Your task to perform on an android device: install app "Google Find My Device" Image 0: 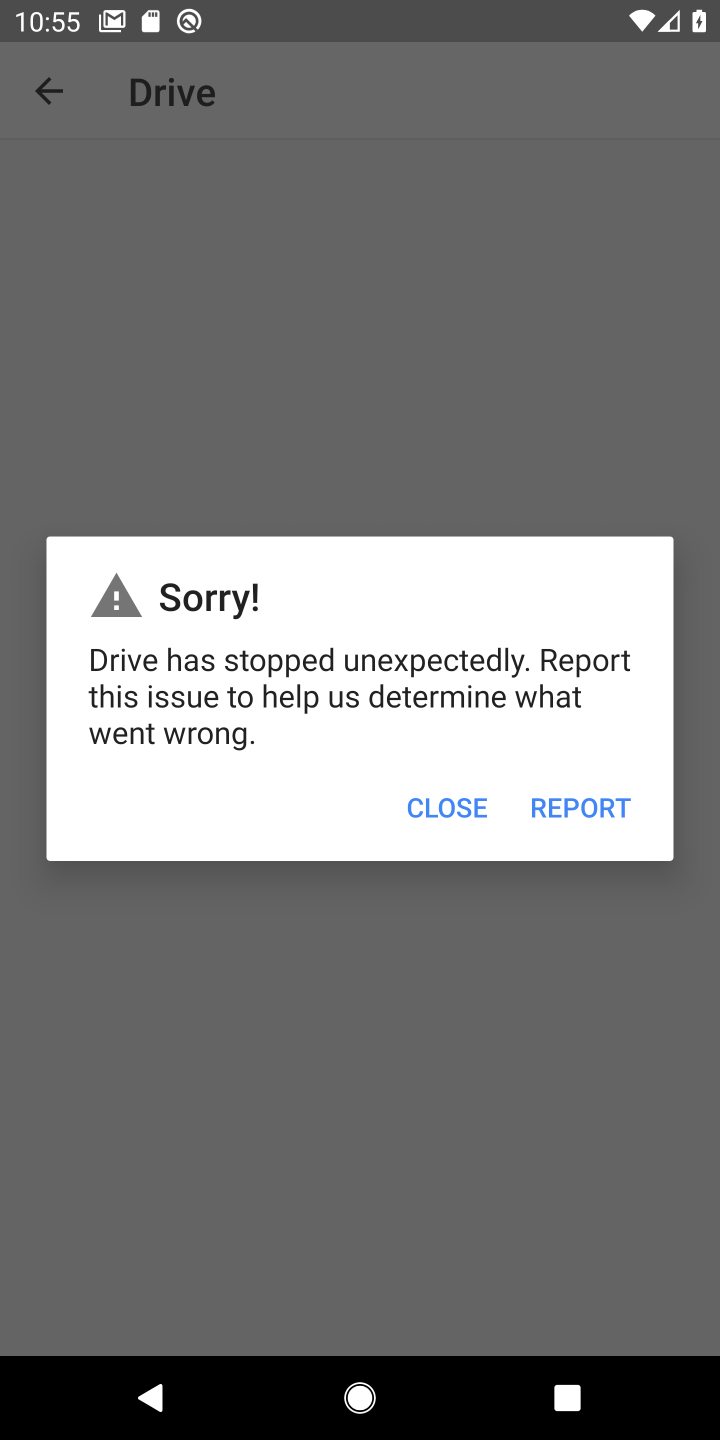
Step 0: press home button
Your task to perform on an android device: install app "Google Find My Device" Image 1: 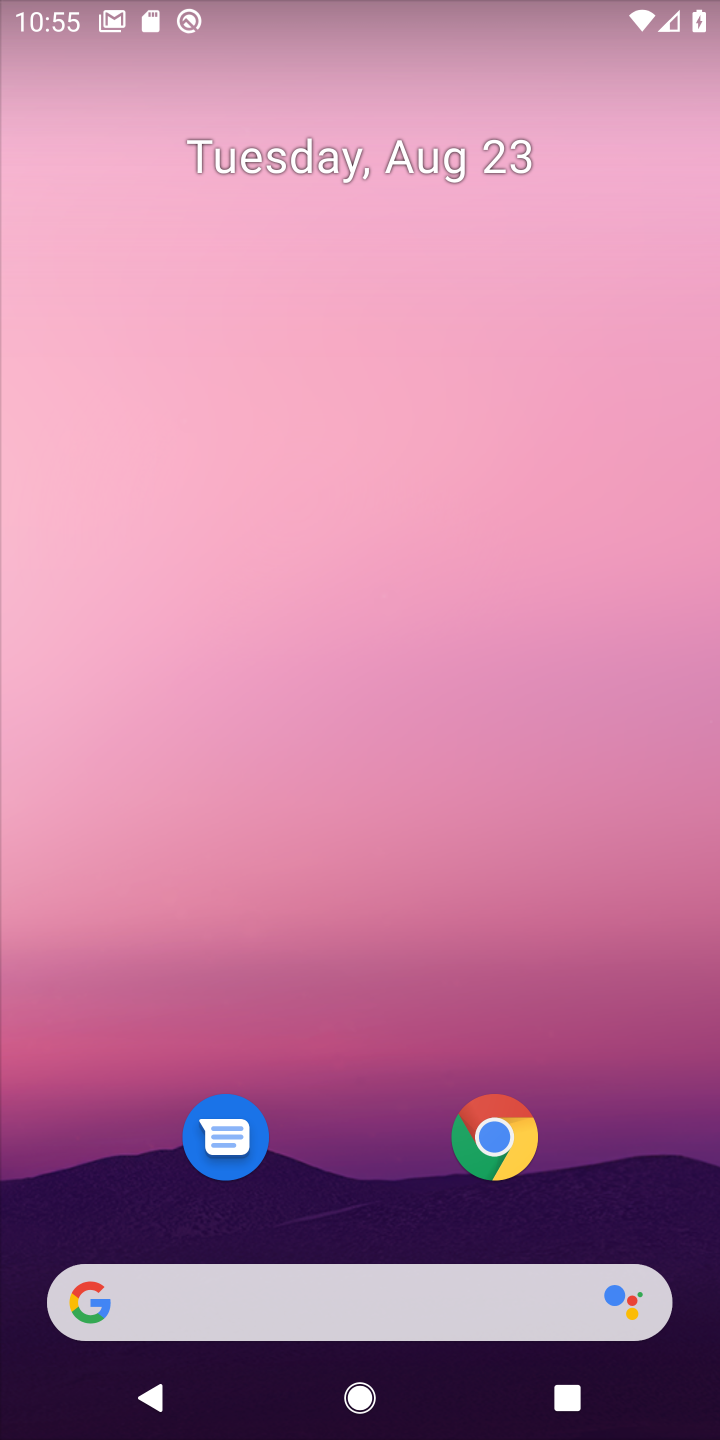
Step 1: drag from (353, 1221) to (429, 272)
Your task to perform on an android device: install app "Google Find My Device" Image 2: 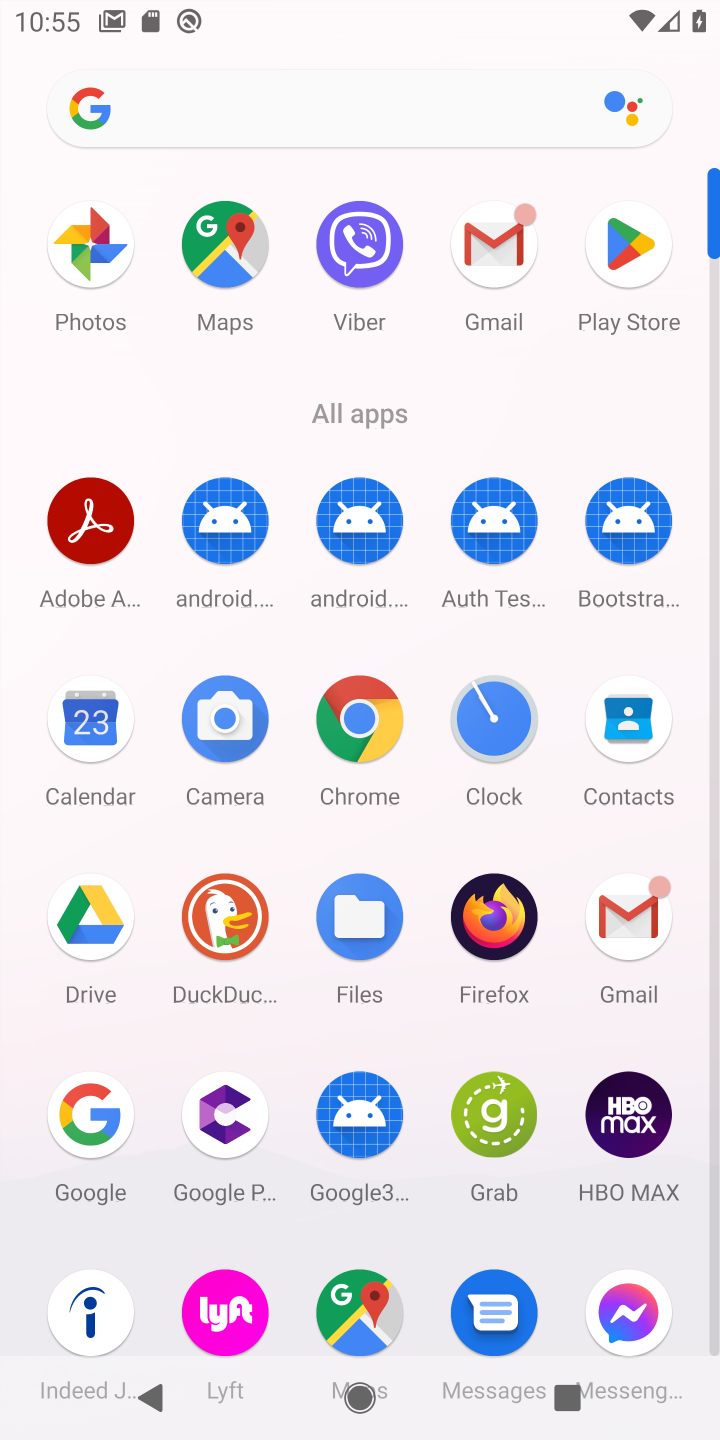
Step 2: click (622, 265)
Your task to perform on an android device: install app "Google Find My Device" Image 3: 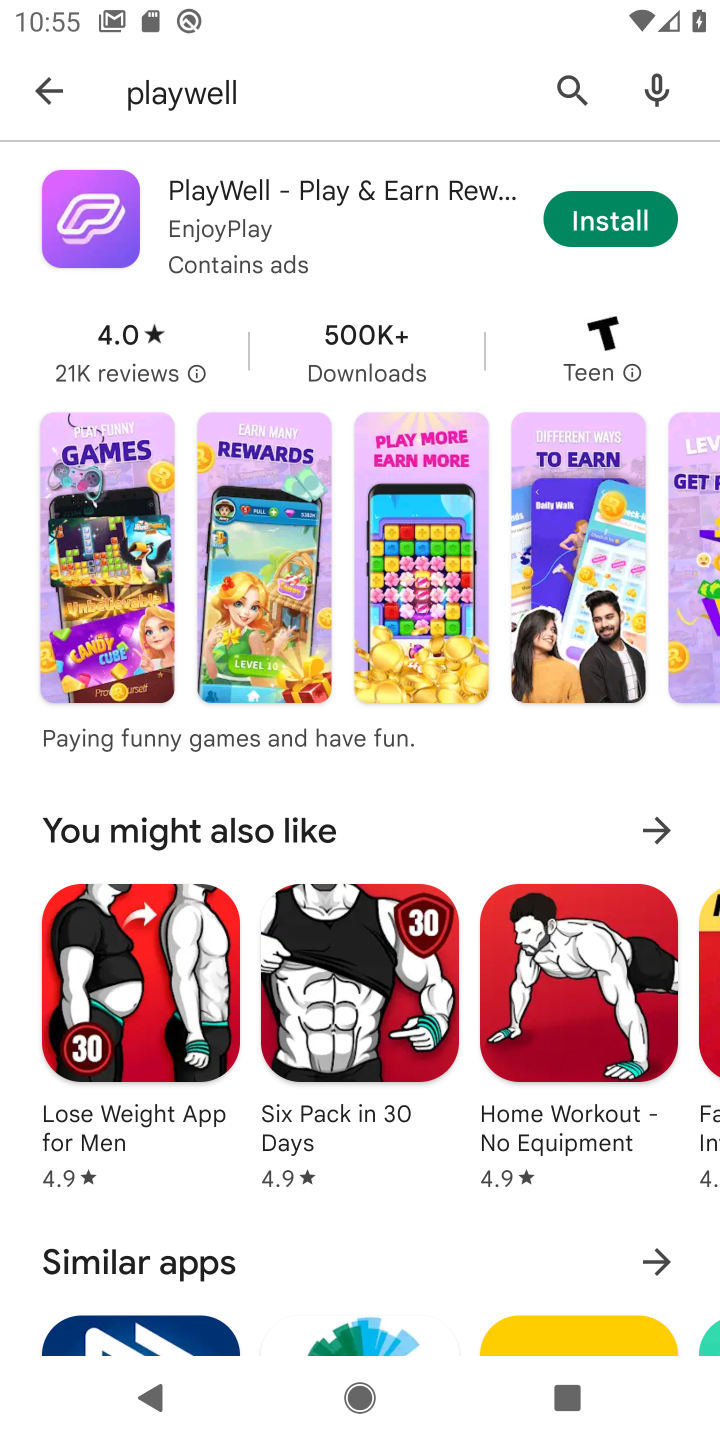
Step 3: click (624, 252)
Your task to perform on an android device: install app "Google Find My Device" Image 4: 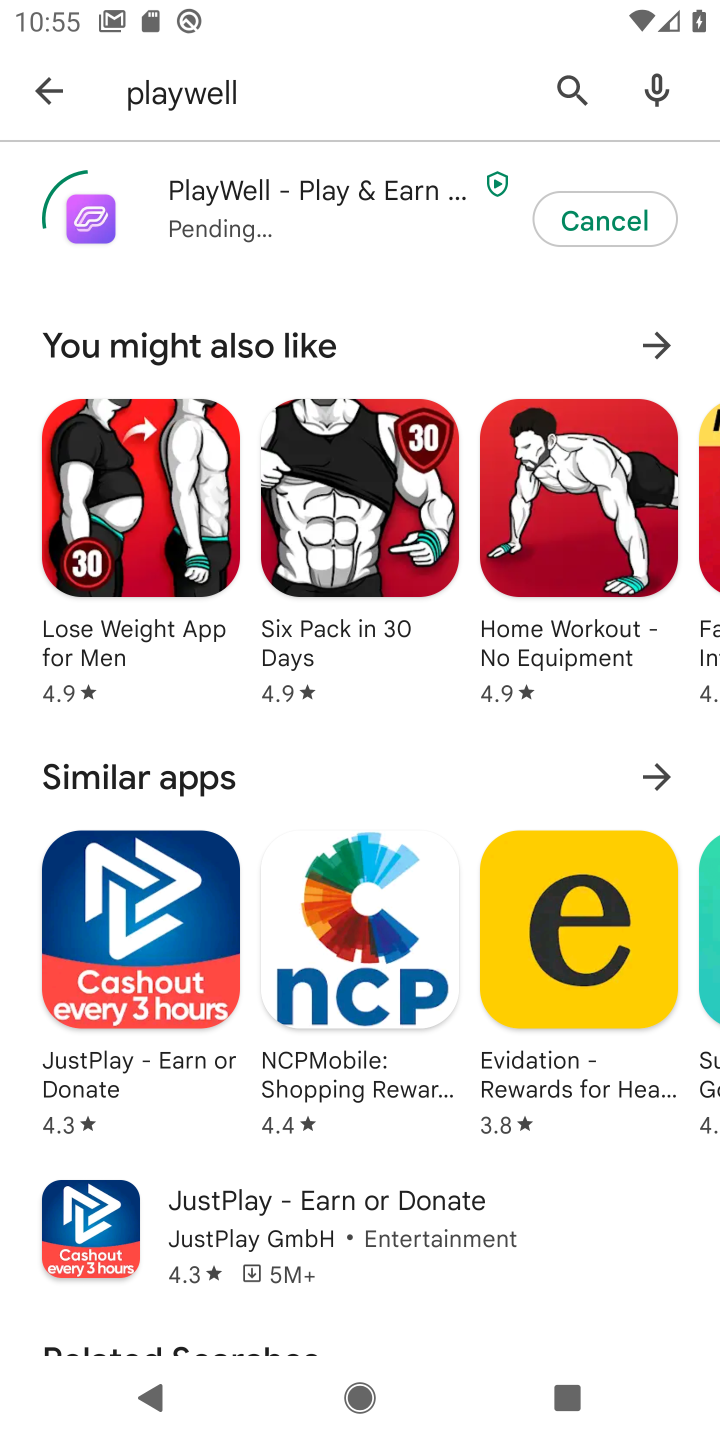
Step 4: click (324, 84)
Your task to perform on an android device: install app "Google Find My Device" Image 5: 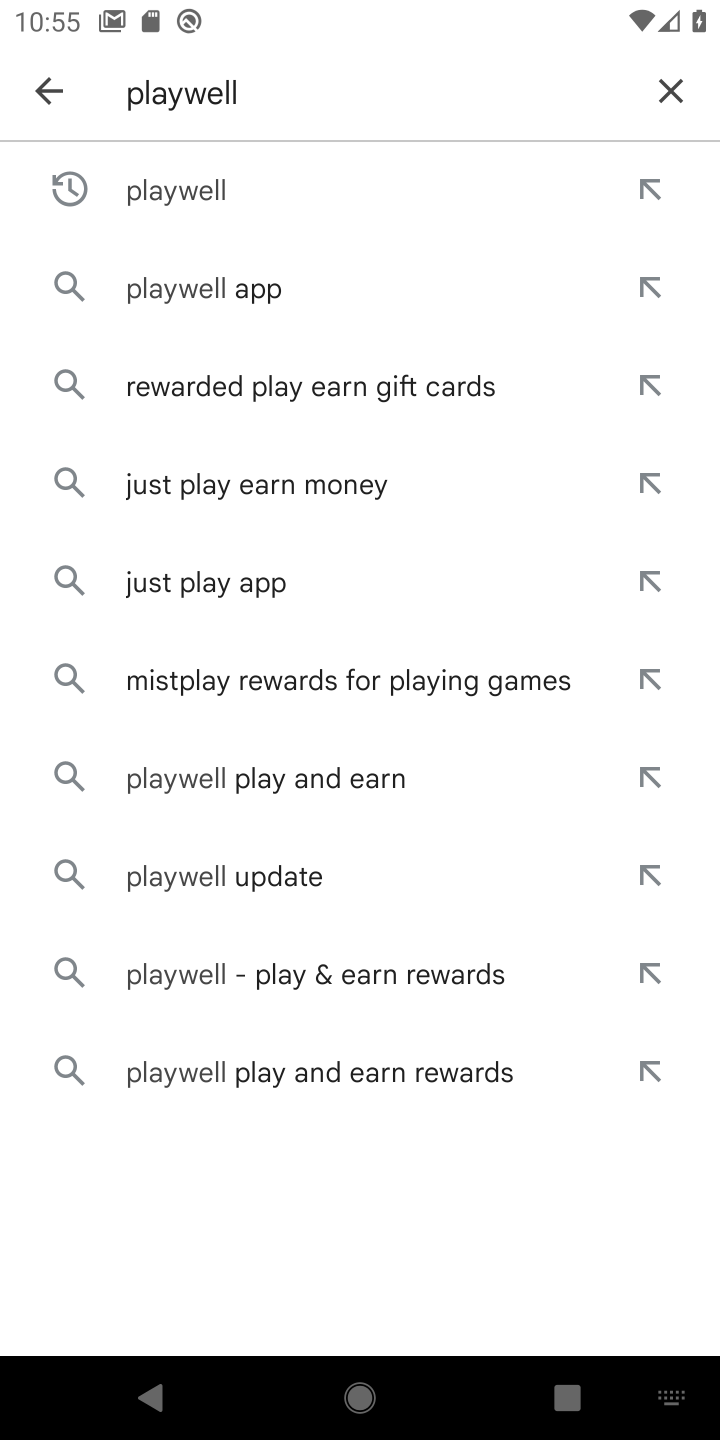
Step 5: click (659, 73)
Your task to perform on an android device: install app "Google Find My Device" Image 6: 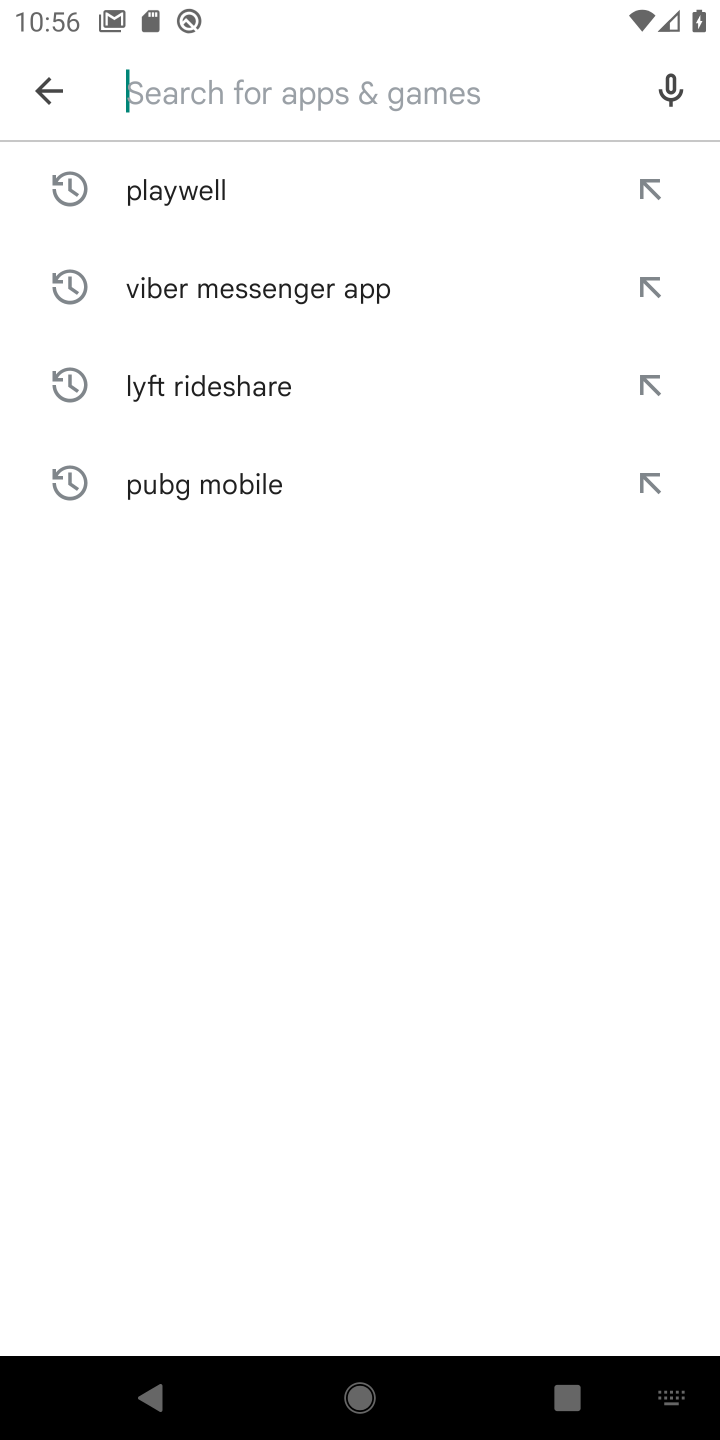
Step 6: type "google find my device"
Your task to perform on an android device: install app "Google Find My Device" Image 7: 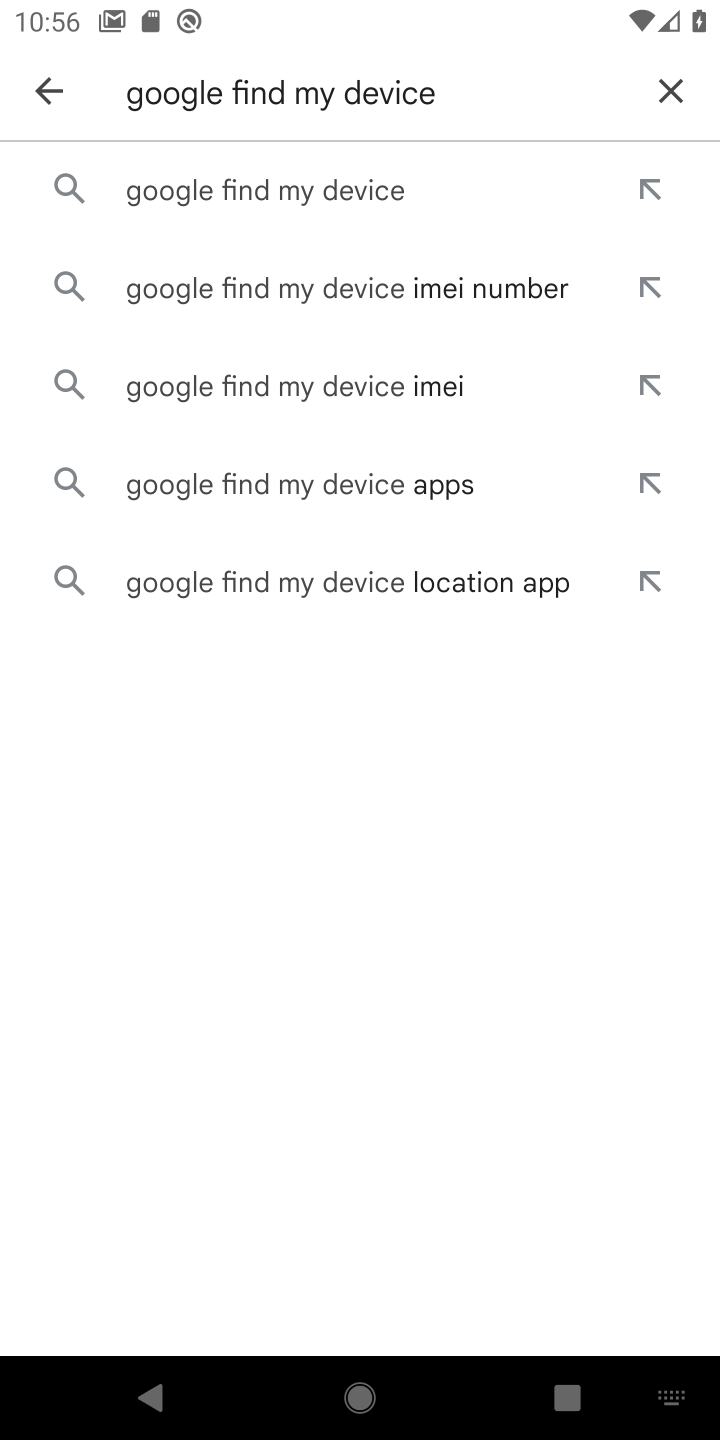
Step 7: click (392, 91)
Your task to perform on an android device: install app "Google Find My Device" Image 8: 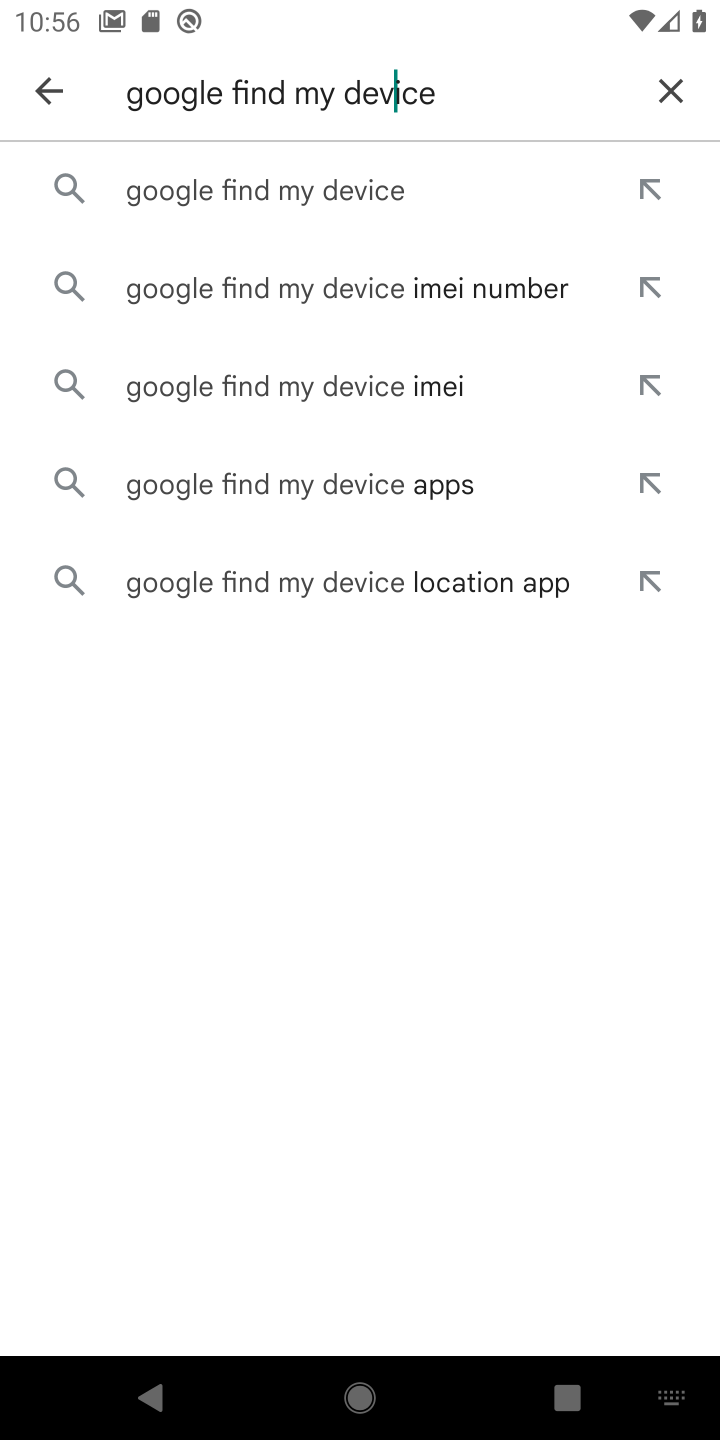
Step 8: click (334, 187)
Your task to perform on an android device: install app "Google Find My Device" Image 9: 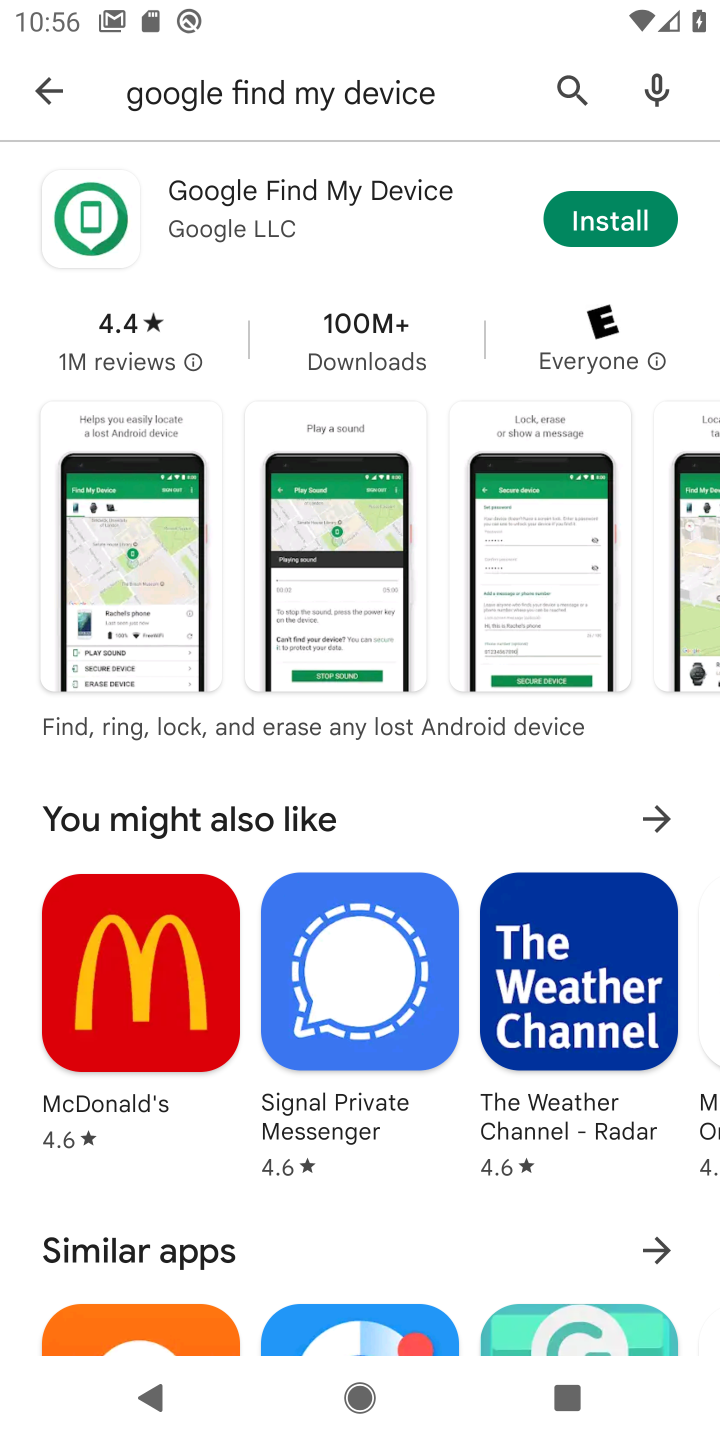
Step 9: click (631, 206)
Your task to perform on an android device: install app "Google Find My Device" Image 10: 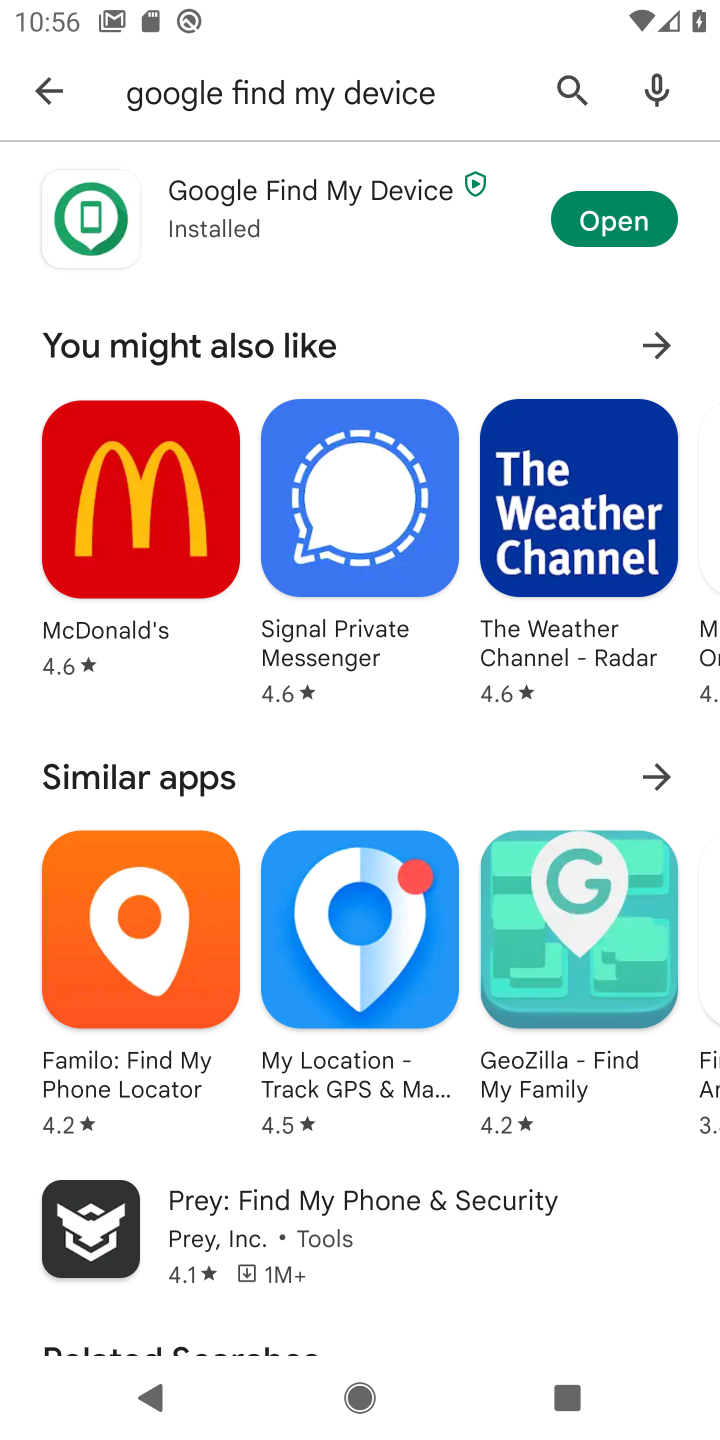
Step 10: task complete